Your task to perform on an android device: Go to accessibility settings Image 0: 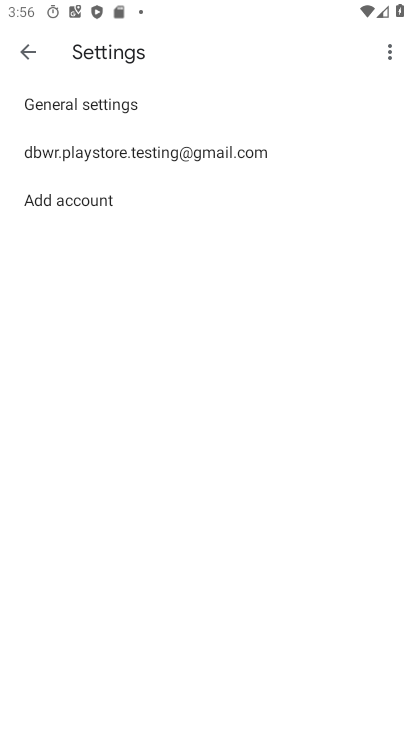
Step 0: press home button
Your task to perform on an android device: Go to accessibility settings Image 1: 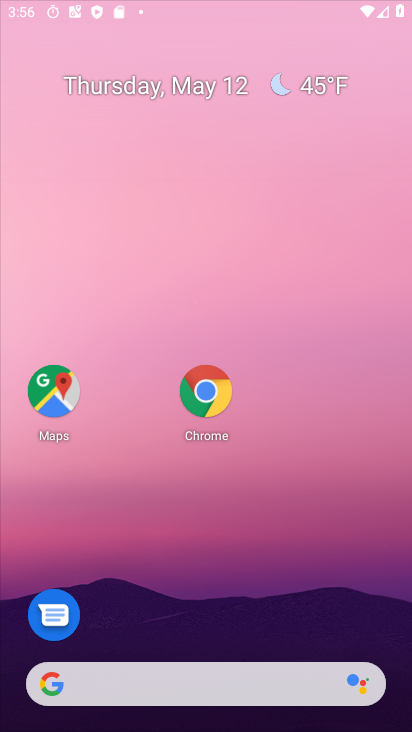
Step 1: drag from (216, 604) to (220, 93)
Your task to perform on an android device: Go to accessibility settings Image 2: 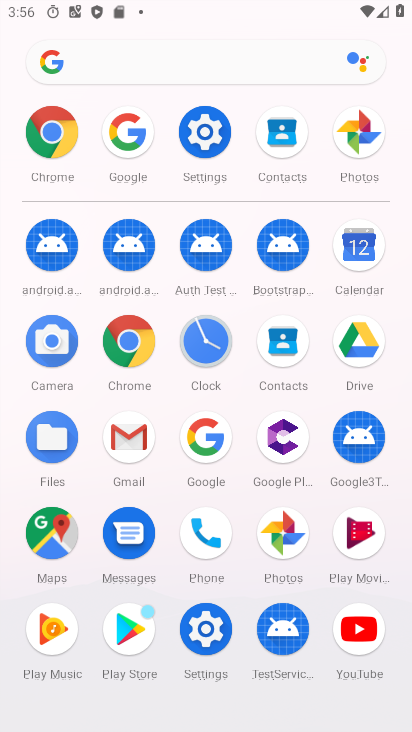
Step 2: click (201, 129)
Your task to perform on an android device: Go to accessibility settings Image 3: 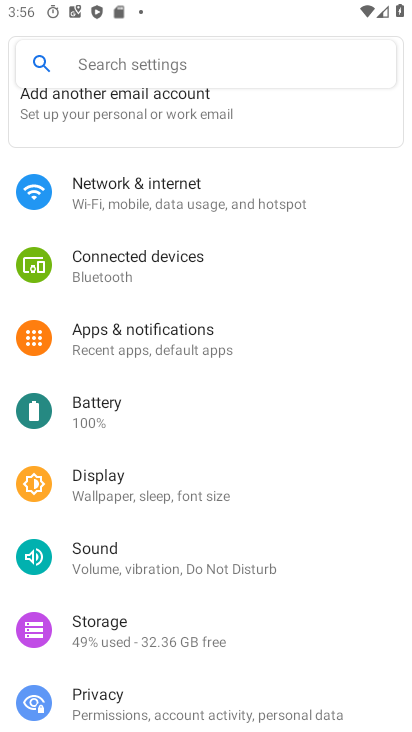
Step 3: drag from (198, 542) to (236, 123)
Your task to perform on an android device: Go to accessibility settings Image 4: 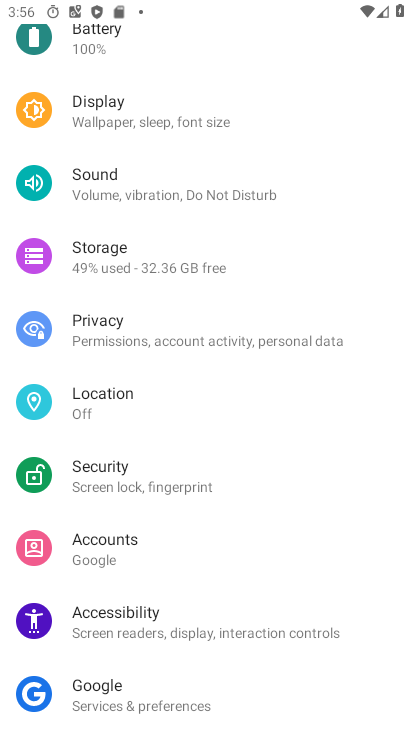
Step 4: click (131, 618)
Your task to perform on an android device: Go to accessibility settings Image 5: 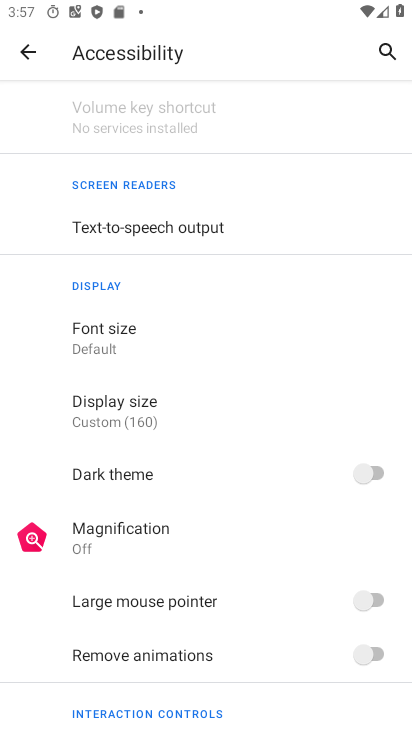
Step 5: task complete